Your task to perform on an android device: Check the news Image 0: 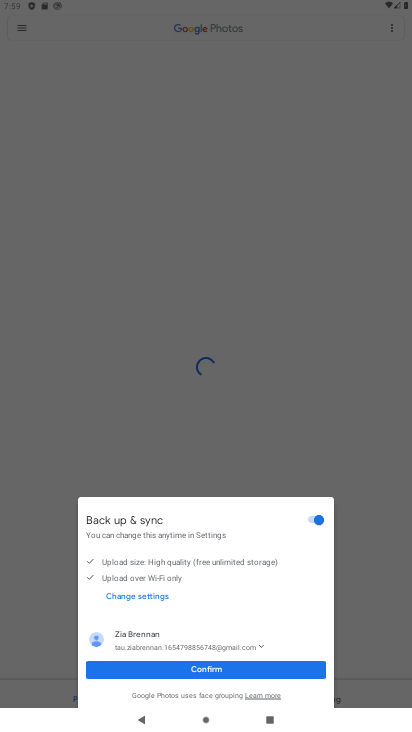
Step 0: press home button
Your task to perform on an android device: Check the news Image 1: 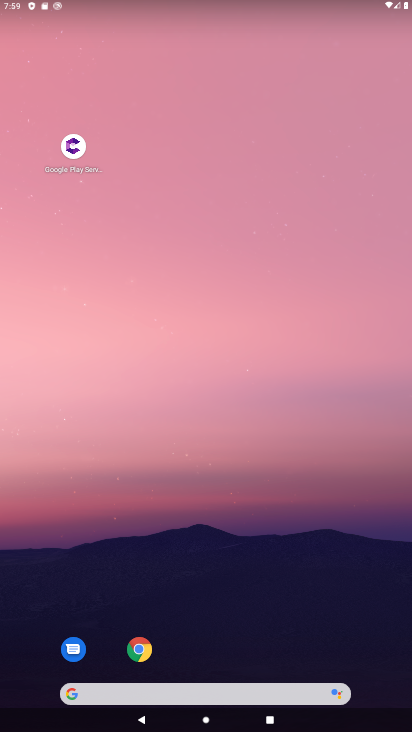
Step 1: click (203, 697)
Your task to perform on an android device: Check the news Image 2: 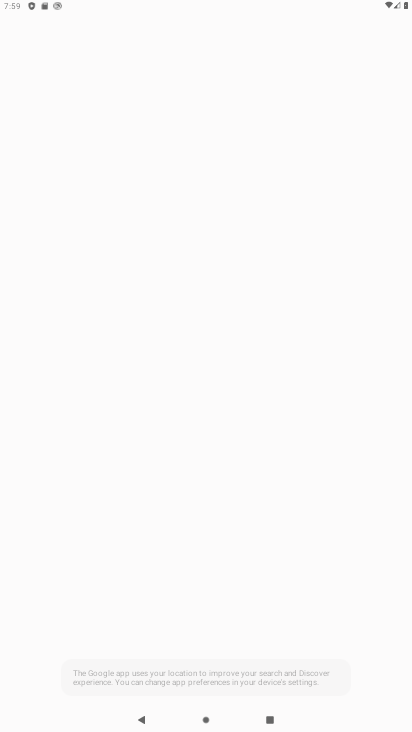
Step 2: click (203, 697)
Your task to perform on an android device: Check the news Image 3: 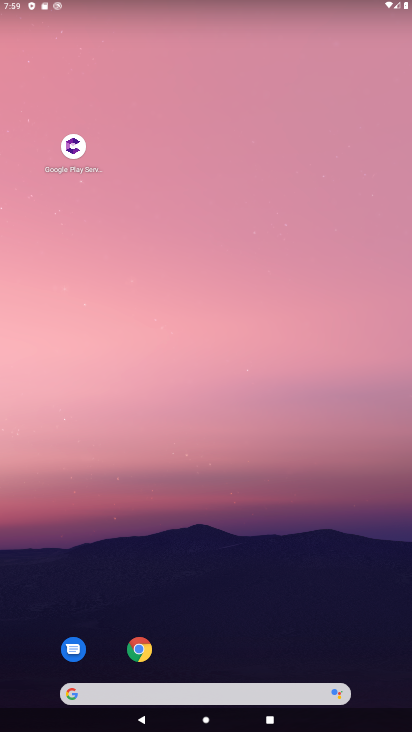
Step 3: drag from (220, 649) to (175, 78)
Your task to perform on an android device: Check the news Image 4: 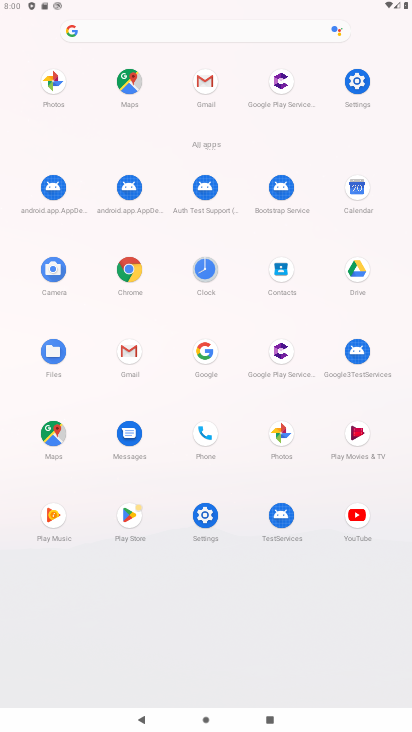
Step 4: click (204, 348)
Your task to perform on an android device: Check the news Image 5: 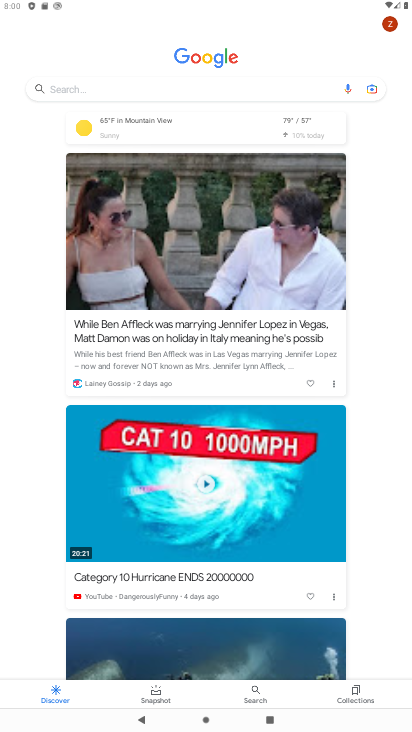
Step 5: task complete